Your task to perform on an android device: Open Chrome and go to settings Image 0: 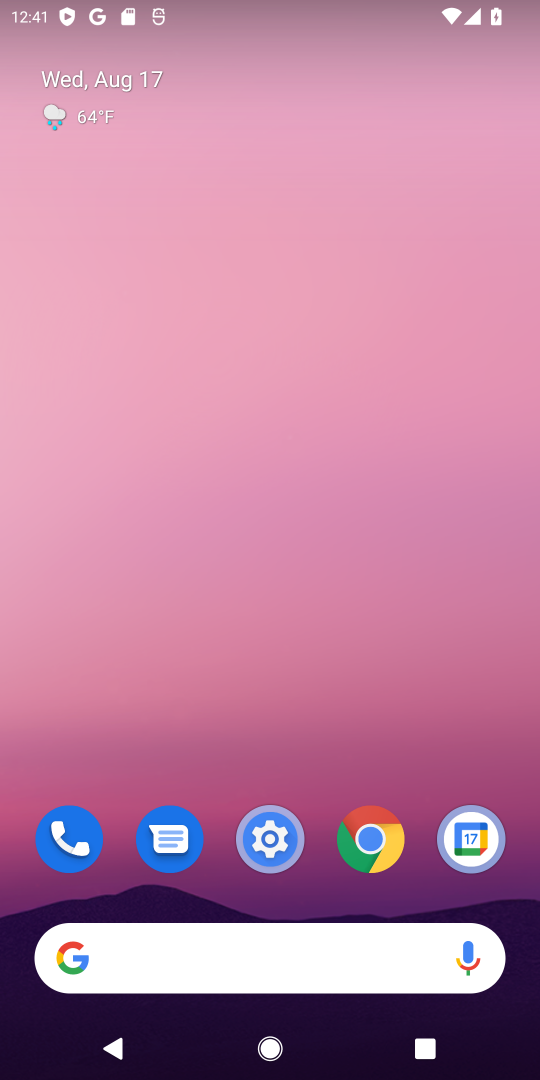
Step 0: click (368, 841)
Your task to perform on an android device: Open Chrome and go to settings Image 1: 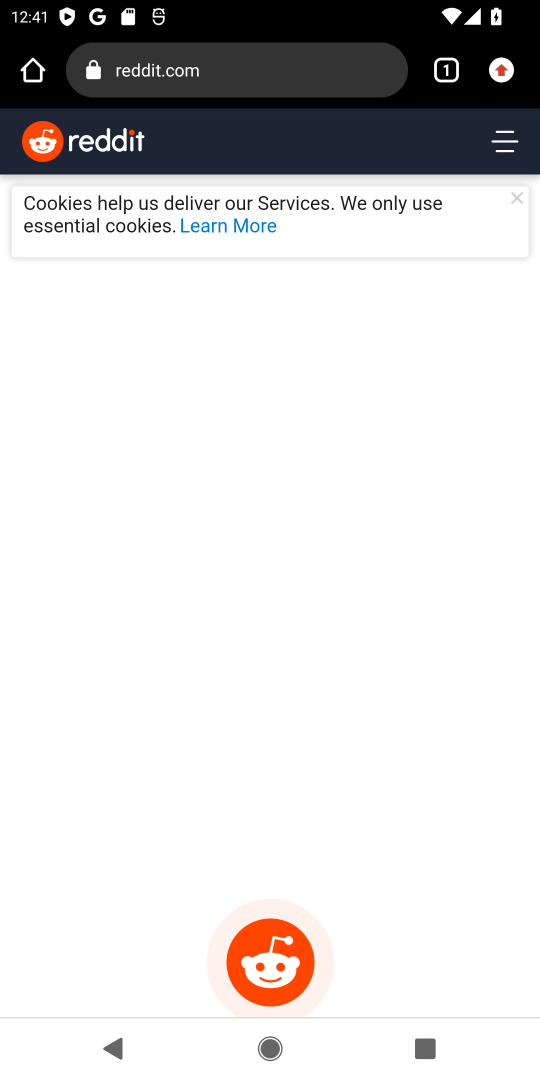
Step 1: task complete